Your task to perform on an android device: turn off airplane mode Image 0: 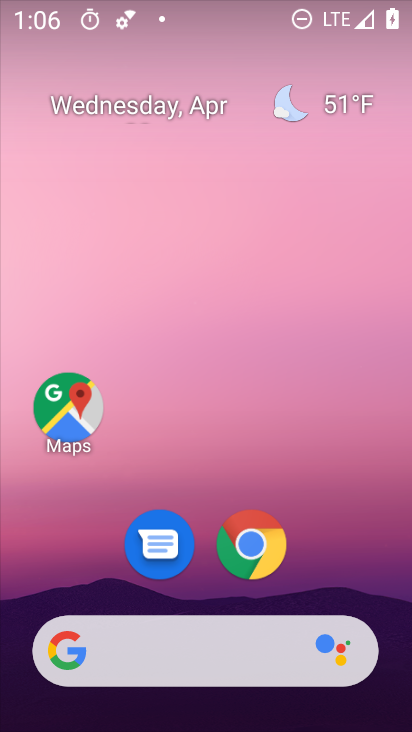
Step 0: drag from (350, 578) to (370, 275)
Your task to perform on an android device: turn off airplane mode Image 1: 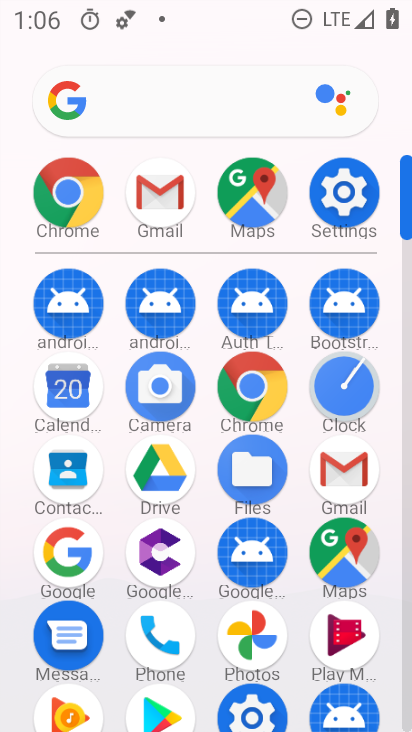
Step 1: click (349, 201)
Your task to perform on an android device: turn off airplane mode Image 2: 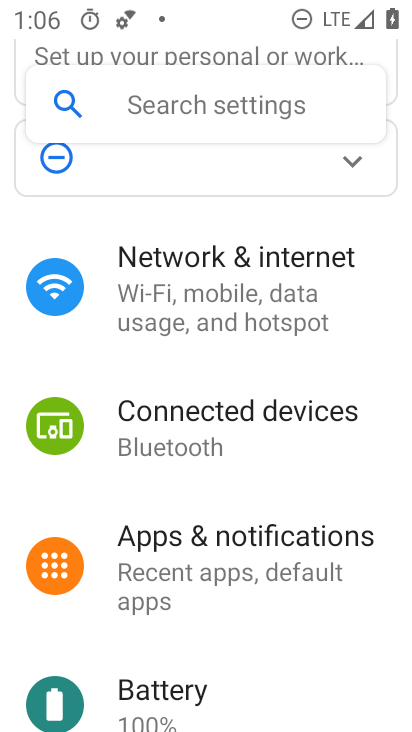
Step 2: drag from (384, 641) to (379, 495)
Your task to perform on an android device: turn off airplane mode Image 3: 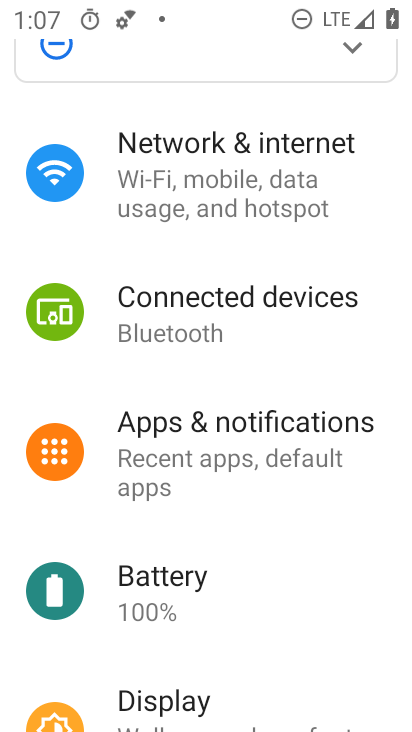
Step 3: drag from (372, 615) to (368, 504)
Your task to perform on an android device: turn off airplane mode Image 4: 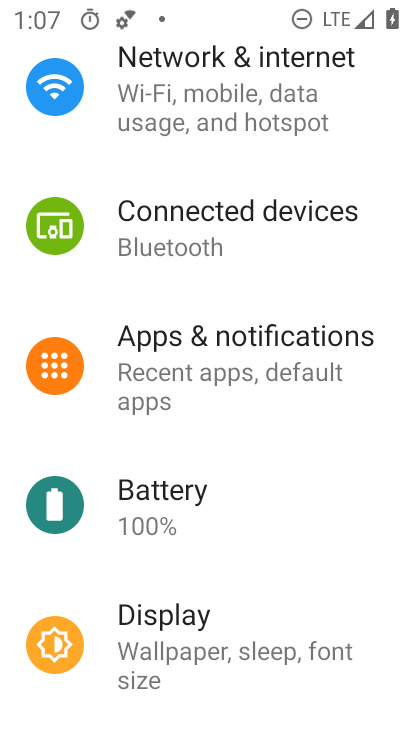
Step 4: drag from (357, 673) to (354, 521)
Your task to perform on an android device: turn off airplane mode Image 5: 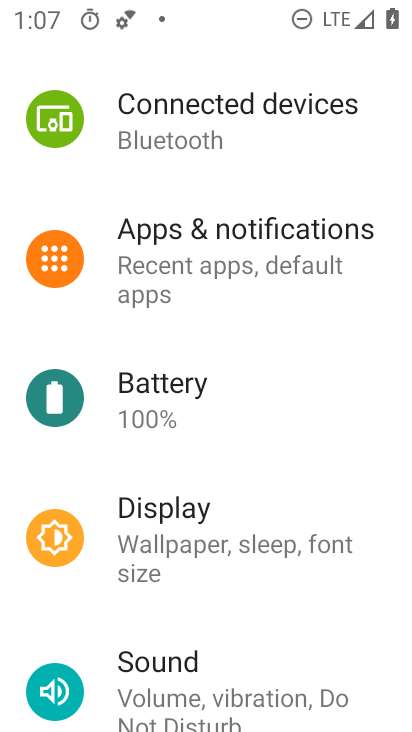
Step 5: drag from (367, 652) to (374, 502)
Your task to perform on an android device: turn off airplane mode Image 6: 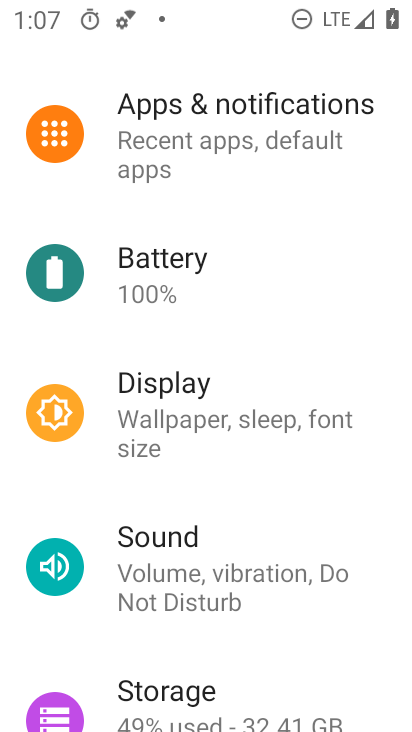
Step 6: drag from (358, 669) to (366, 570)
Your task to perform on an android device: turn off airplane mode Image 7: 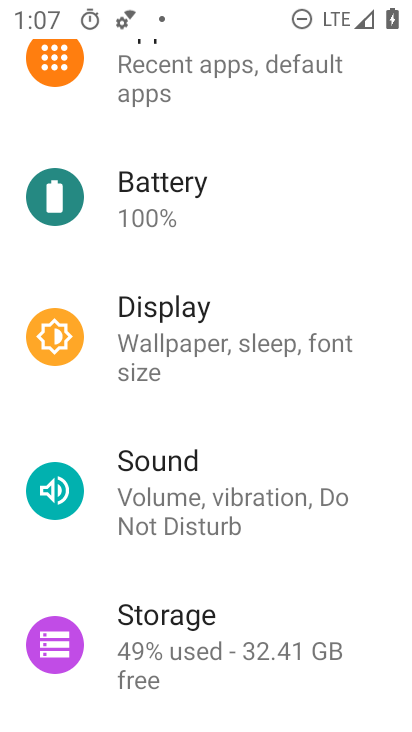
Step 7: drag from (361, 691) to (370, 569)
Your task to perform on an android device: turn off airplane mode Image 8: 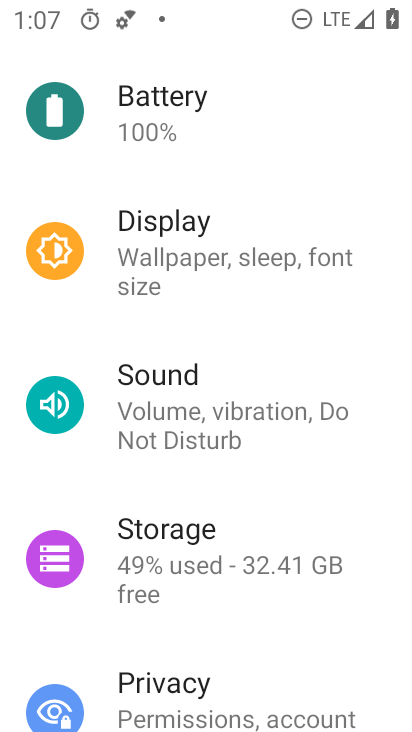
Step 8: drag from (380, 627) to (381, 499)
Your task to perform on an android device: turn off airplane mode Image 9: 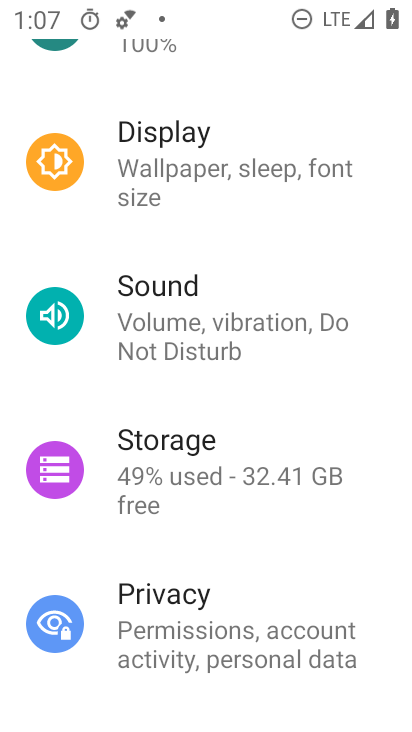
Step 9: drag from (365, 656) to (375, 518)
Your task to perform on an android device: turn off airplane mode Image 10: 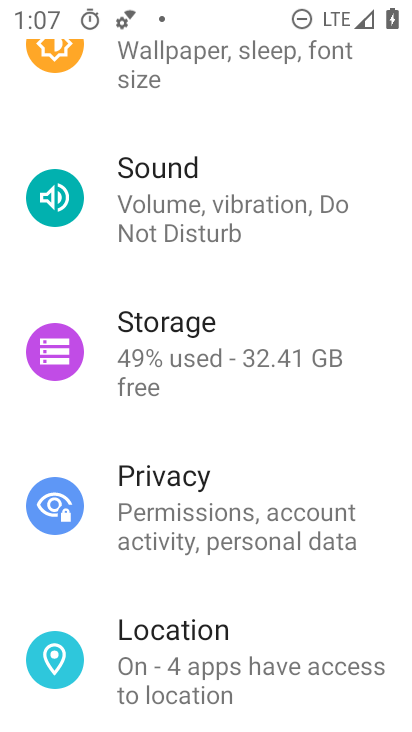
Step 10: drag from (386, 682) to (389, 495)
Your task to perform on an android device: turn off airplane mode Image 11: 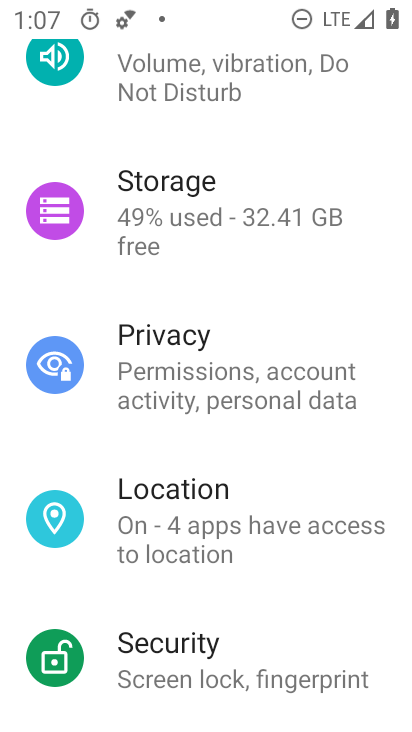
Step 11: drag from (360, 604) to (367, 476)
Your task to perform on an android device: turn off airplane mode Image 12: 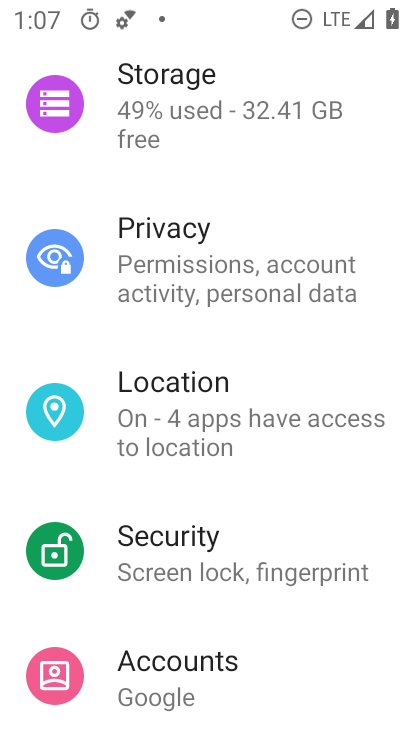
Step 12: drag from (363, 642) to (372, 493)
Your task to perform on an android device: turn off airplane mode Image 13: 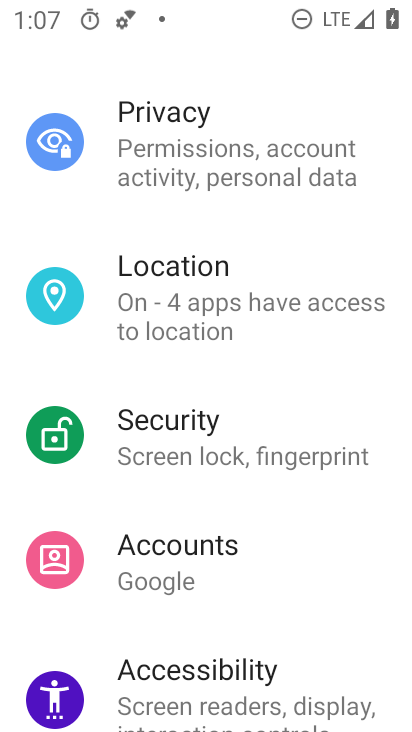
Step 13: drag from (369, 611) to (386, 414)
Your task to perform on an android device: turn off airplane mode Image 14: 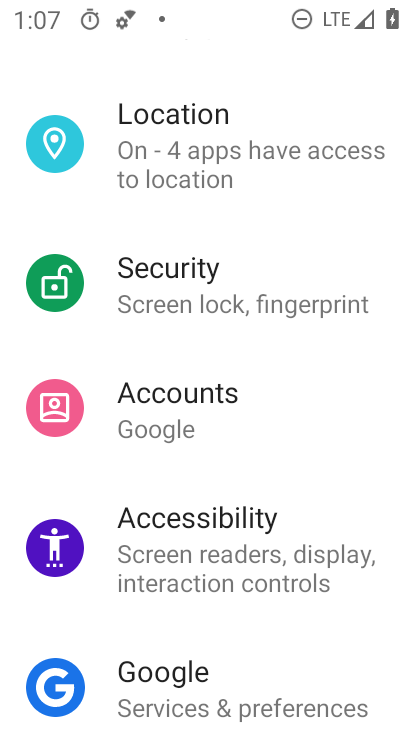
Step 14: drag from (361, 224) to (354, 400)
Your task to perform on an android device: turn off airplane mode Image 15: 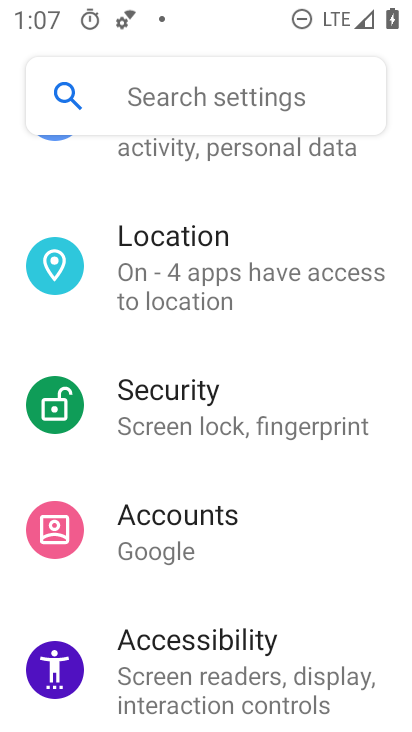
Step 15: drag from (374, 224) to (379, 394)
Your task to perform on an android device: turn off airplane mode Image 16: 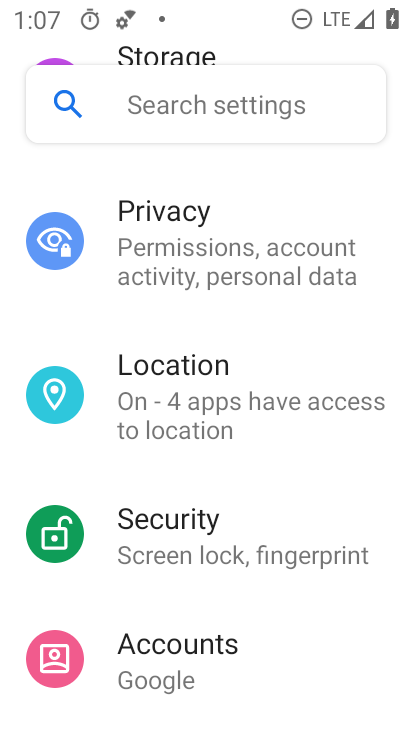
Step 16: drag from (382, 219) to (388, 422)
Your task to perform on an android device: turn off airplane mode Image 17: 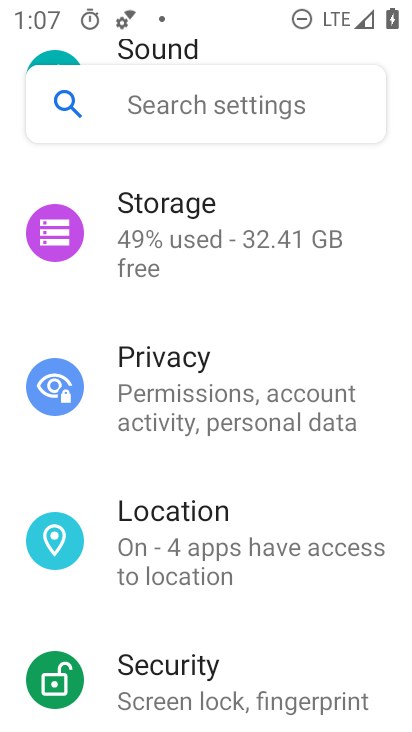
Step 17: drag from (382, 214) to (384, 379)
Your task to perform on an android device: turn off airplane mode Image 18: 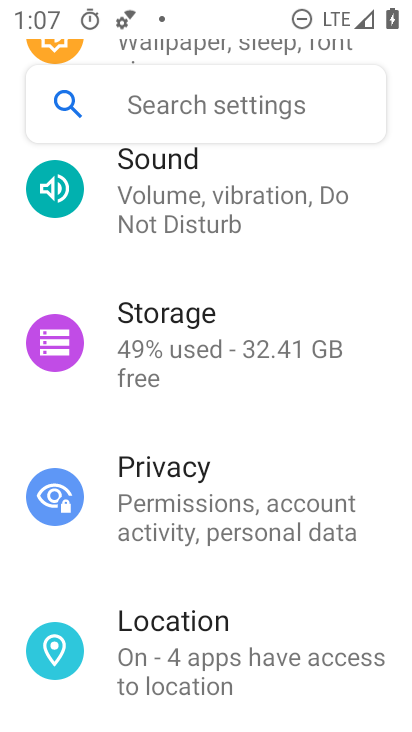
Step 18: drag from (383, 270) to (386, 382)
Your task to perform on an android device: turn off airplane mode Image 19: 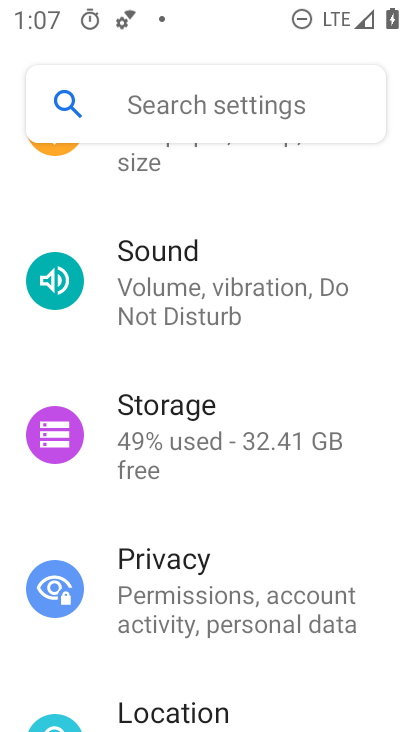
Step 19: drag from (374, 191) to (366, 422)
Your task to perform on an android device: turn off airplane mode Image 20: 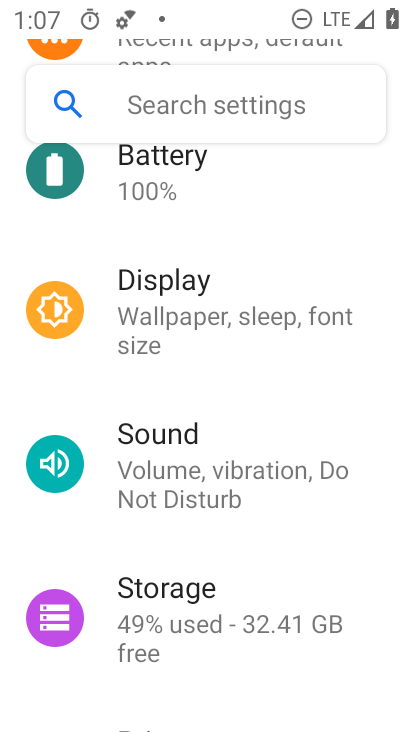
Step 20: drag from (362, 212) to (362, 408)
Your task to perform on an android device: turn off airplane mode Image 21: 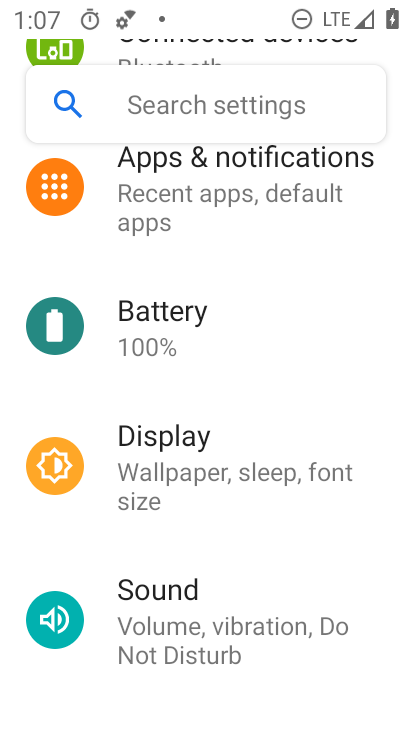
Step 21: drag from (377, 209) to (379, 426)
Your task to perform on an android device: turn off airplane mode Image 22: 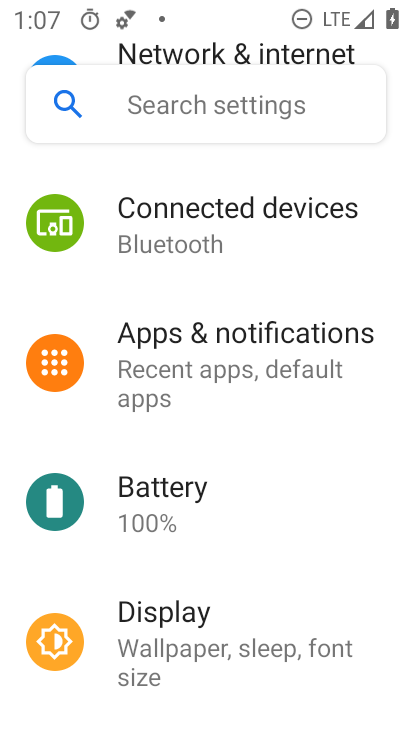
Step 22: drag from (378, 223) to (358, 450)
Your task to perform on an android device: turn off airplane mode Image 23: 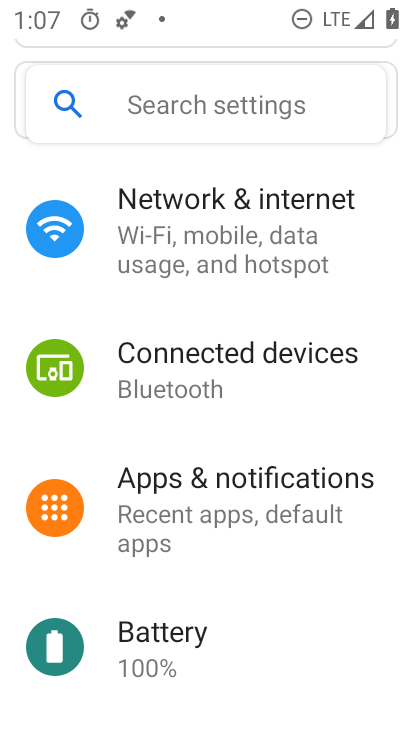
Step 23: drag from (368, 202) to (367, 379)
Your task to perform on an android device: turn off airplane mode Image 24: 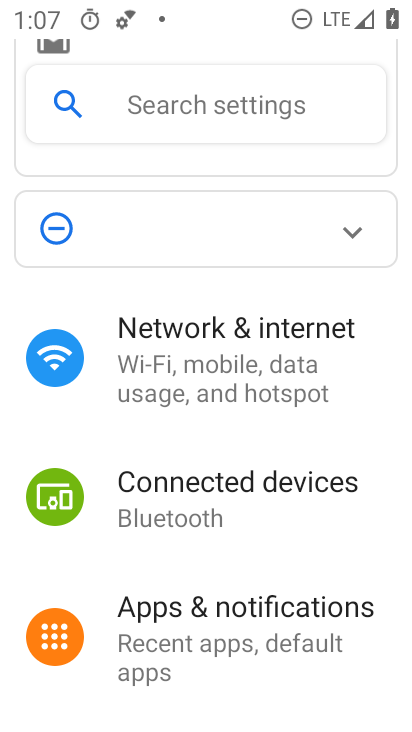
Step 24: click (231, 359)
Your task to perform on an android device: turn off airplane mode Image 25: 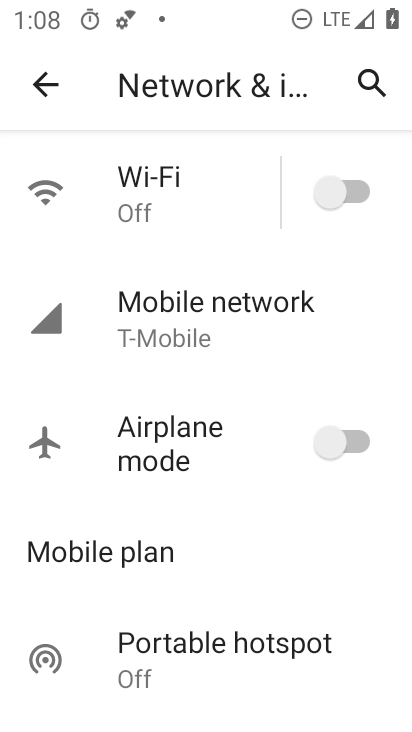
Step 25: task complete